Your task to perform on an android device: turn on improve location accuracy Image 0: 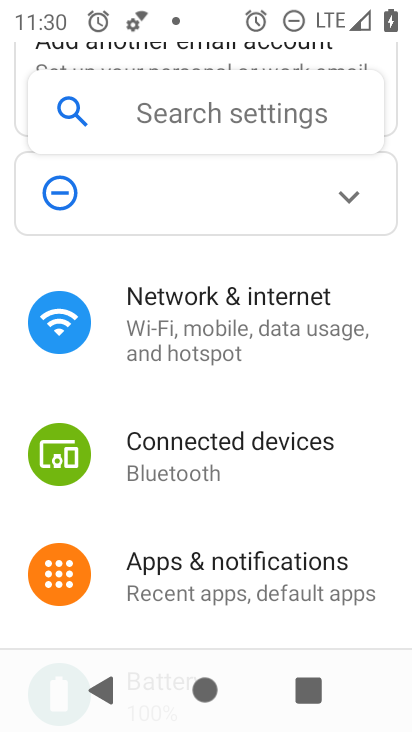
Step 0: drag from (357, 544) to (338, 195)
Your task to perform on an android device: turn on improve location accuracy Image 1: 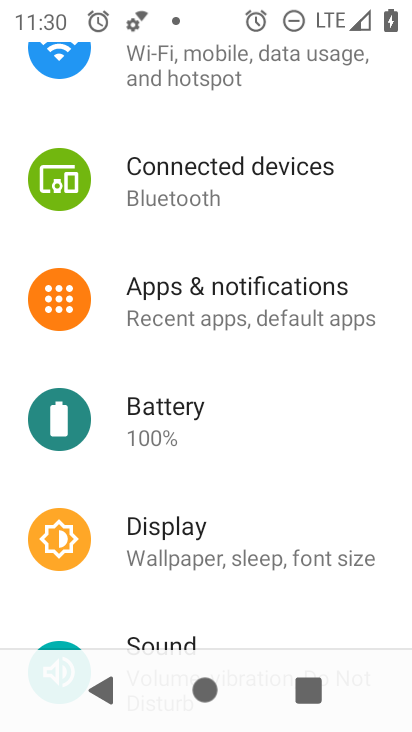
Step 1: drag from (316, 576) to (325, 140)
Your task to perform on an android device: turn on improve location accuracy Image 2: 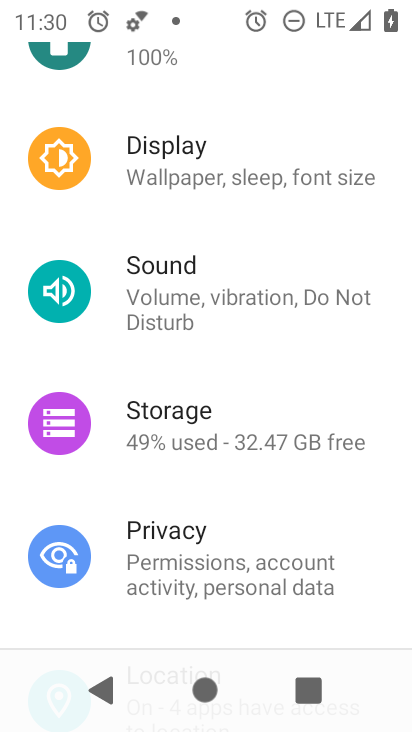
Step 2: drag from (249, 576) to (288, 114)
Your task to perform on an android device: turn on improve location accuracy Image 3: 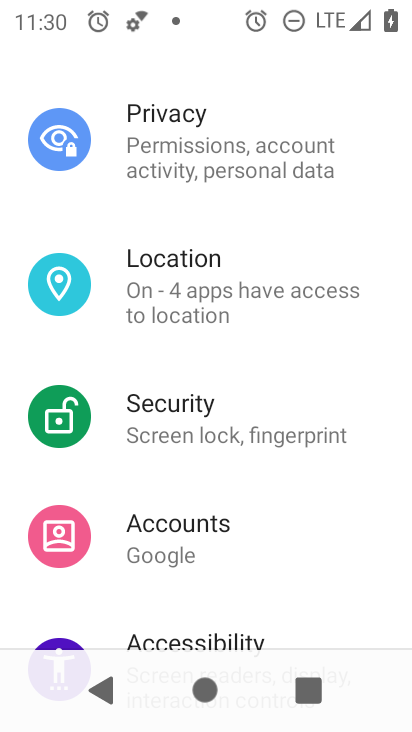
Step 3: drag from (244, 568) to (267, 148)
Your task to perform on an android device: turn on improve location accuracy Image 4: 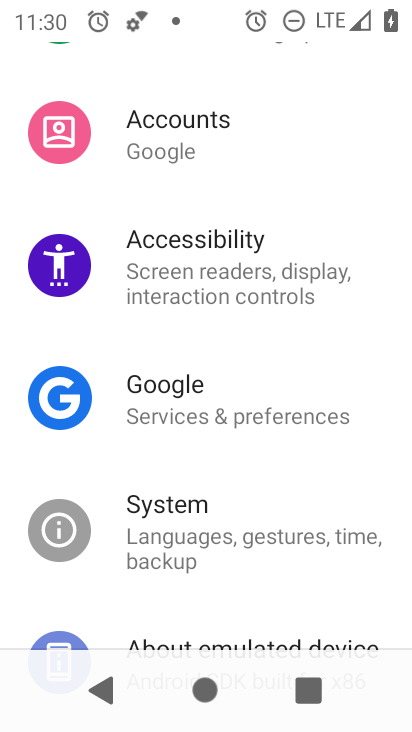
Step 4: drag from (267, 146) to (278, 442)
Your task to perform on an android device: turn on improve location accuracy Image 5: 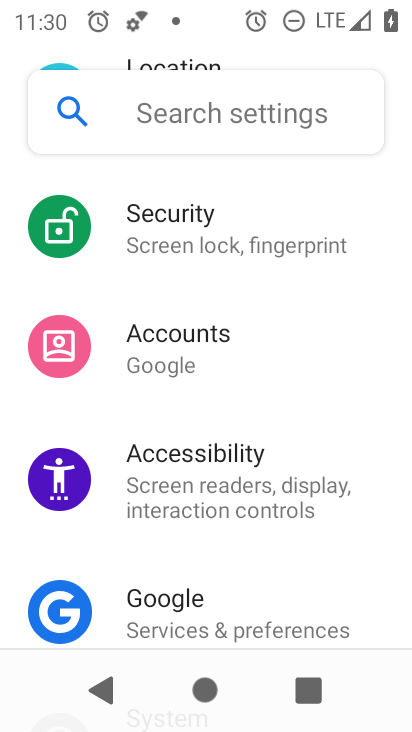
Step 5: click (270, 609)
Your task to perform on an android device: turn on improve location accuracy Image 6: 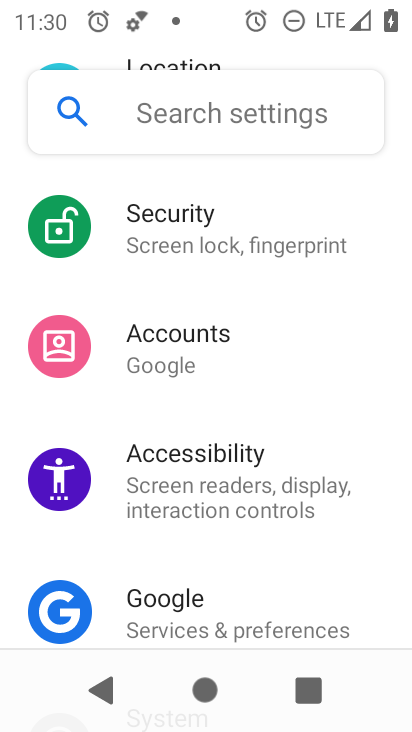
Step 6: drag from (253, 267) to (251, 546)
Your task to perform on an android device: turn on improve location accuracy Image 7: 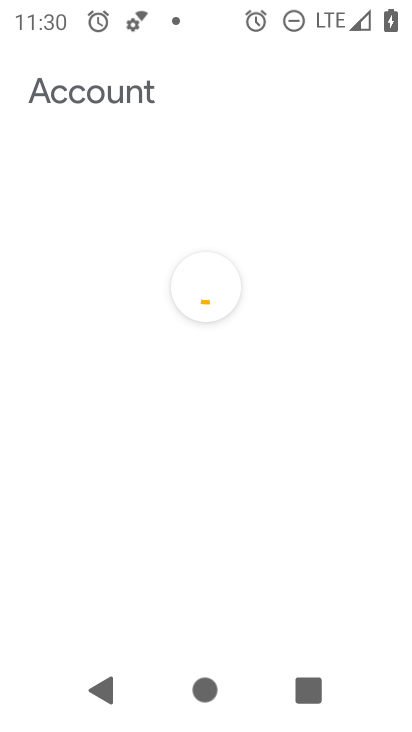
Step 7: press back button
Your task to perform on an android device: turn on improve location accuracy Image 8: 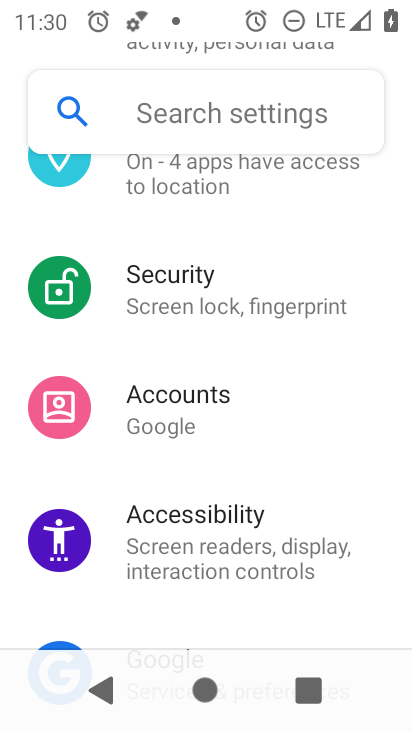
Step 8: click (265, 177)
Your task to perform on an android device: turn on improve location accuracy Image 9: 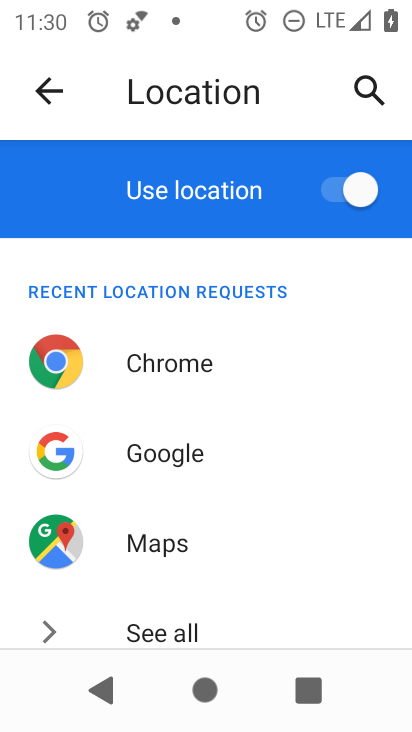
Step 9: drag from (295, 609) to (280, 196)
Your task to perform on an android device: turn on improve location accuracy Image 10: 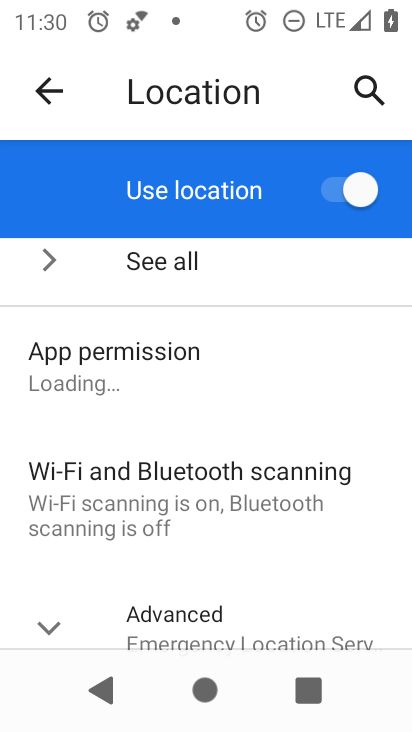
Step 10: click (181, 622)
Your task to perform on an android device: turn on improve location accuracy Image 11: 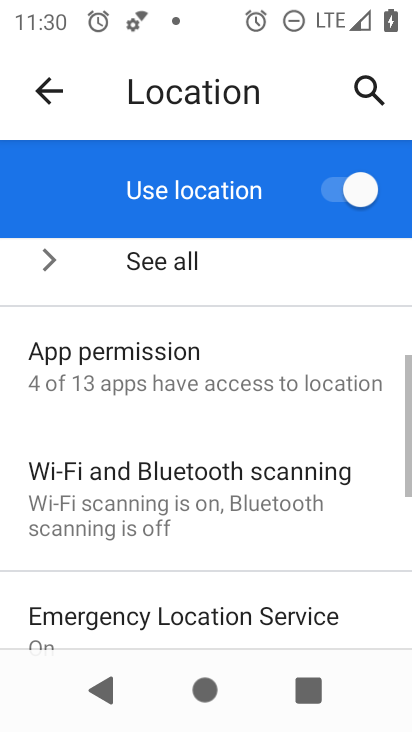
Step 11: drag from (301, 534) to (277, 203)
Your task to perform on an android device: turn on improve location accuracy Image 12: 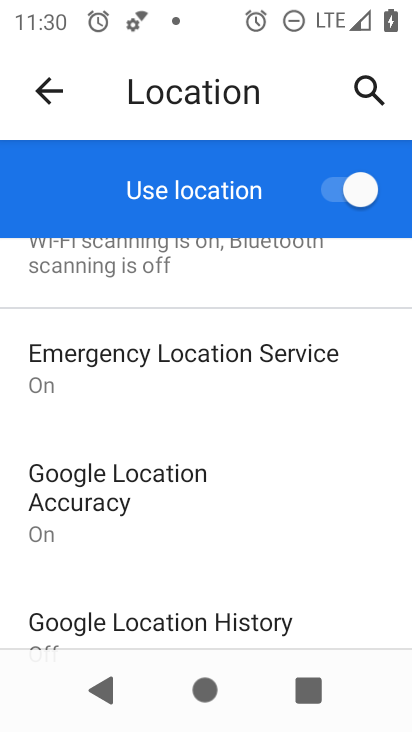
Step 12: drag from (263, 595) to (285, 316)
Your task to perform on an android device: turn on improve location accuracy Image 13: 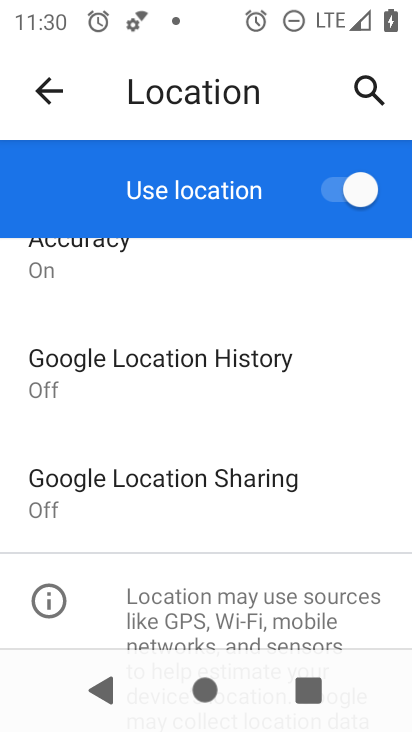
Step 13: drag from (263, 313) to (262, 553)
Your task to perform on an android device: turn on improve location accuracy Image 14: 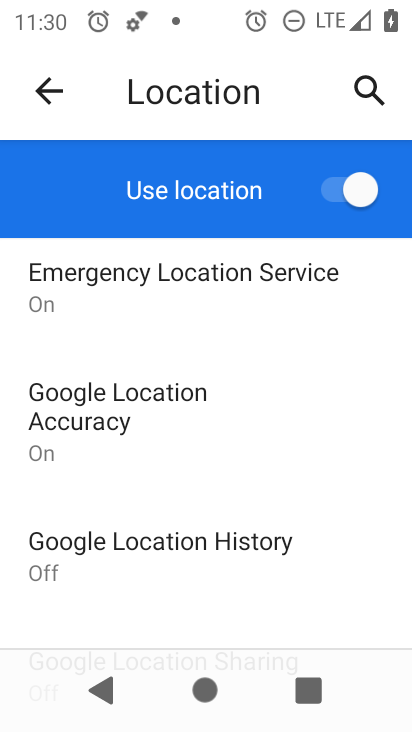
Step 14: click (115, 406)
Your task to perform on an android device: turn on improve location accuracy Image 15: 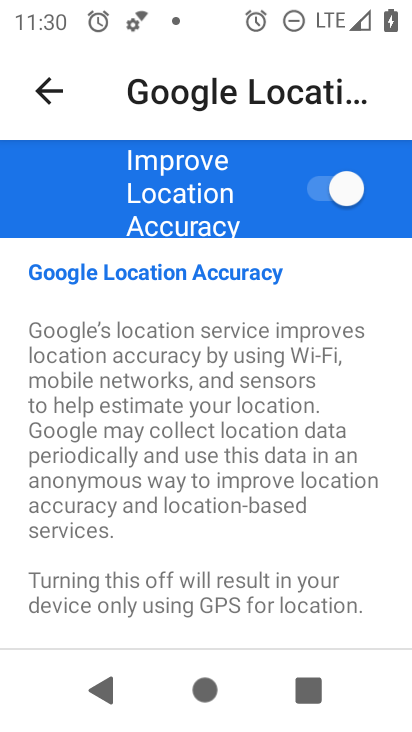
Step 15: task complete